Your task to perform on an android device: Toggle the flashlight Image 0: 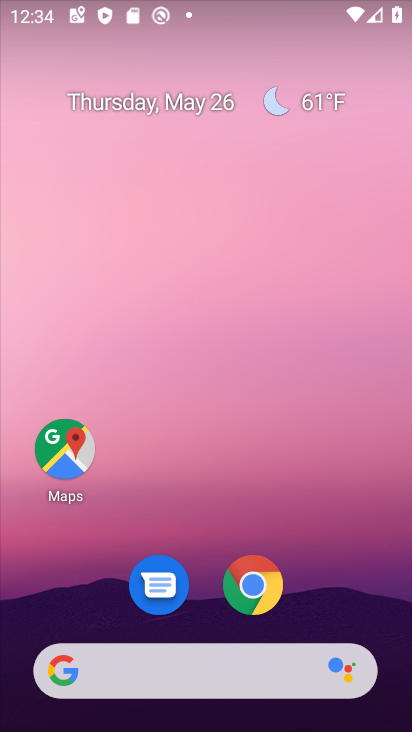
Step 0: drag from (259, 532) to (253, 10)
Your task to perform on an android device: Toggle the flashlight Image 1: 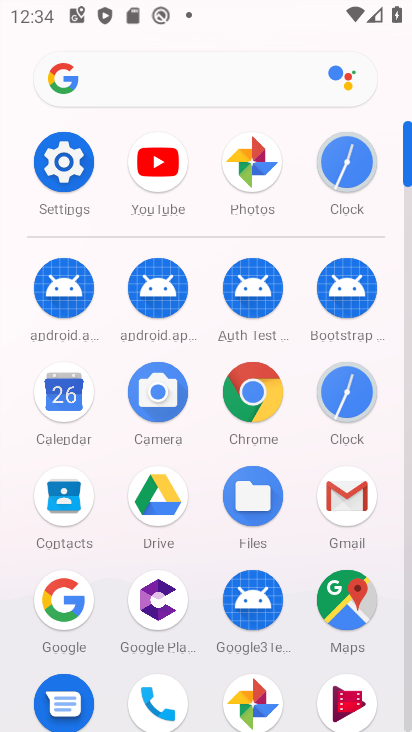
Step 1: click (79, 155)
Your task to perform on an android device: Toggle the flashlight Image 2: 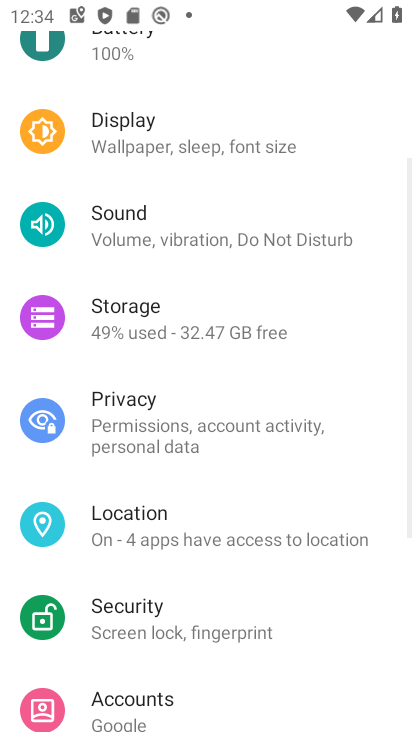
Step 2: drag from (196, 251) to (246, 655)
Your task to perform on an android device: Toggle the flashlight Image 3: 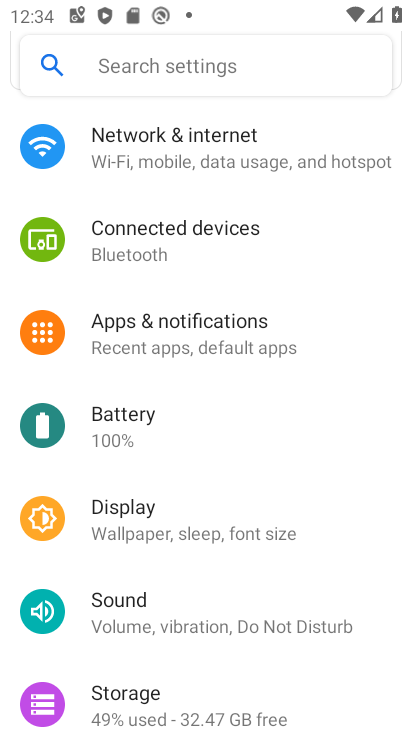
Step 3: drag from (240, 252) to (245, 641)
Your task to perform on an android device: Toggle the flashlight Image 4: 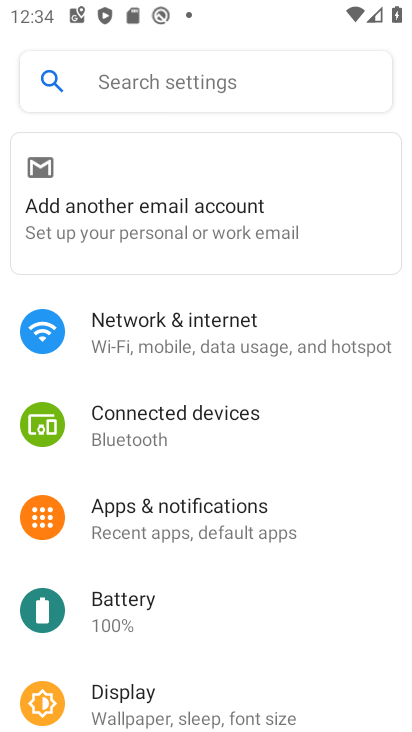
Step 4: click (214, 65)
Your task to perform on an android device: Toggle the flashlight Image 5: 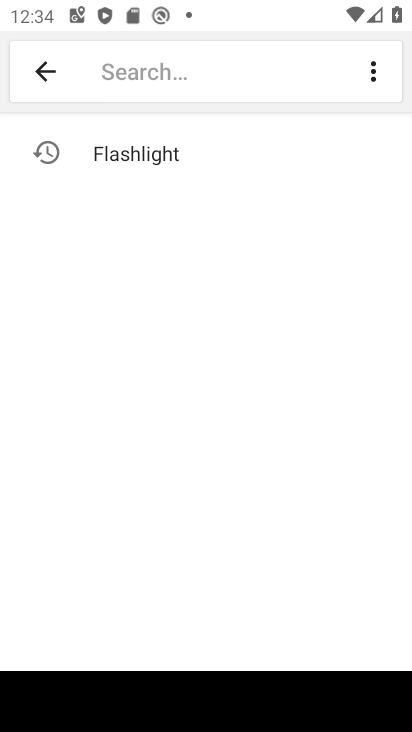
Step 5: click (174, 146)
Your task to perform on an android device: Toggle the flashlight Image 6: 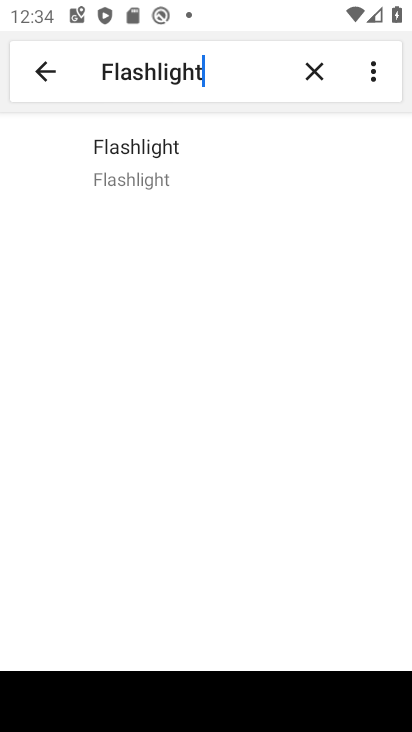
Step 6: click (143, 157)
Your task to perform on an android device: Toggle the flashlight Image 7: 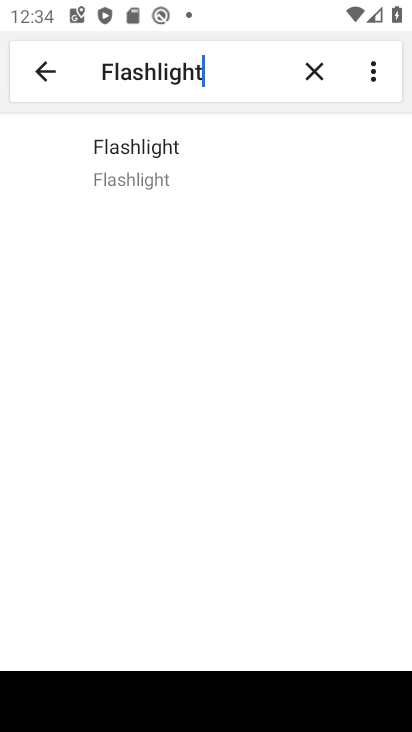
Step 7: task complete